Your task to perform on an android device: Go to battery settings Image 0: 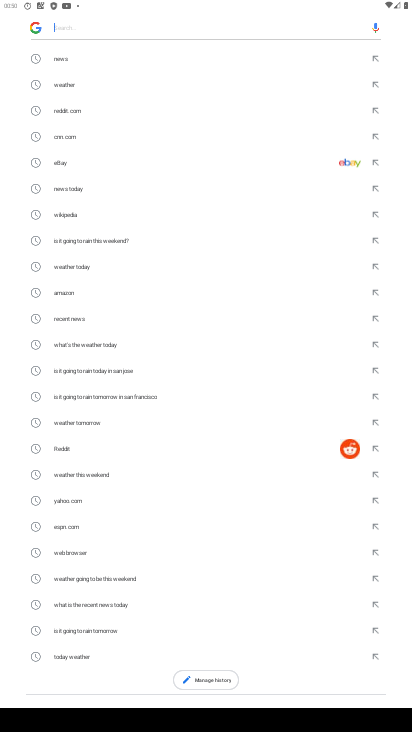
Step 0: press home button
Your task to perform on an android device: Go to battery settings Image 1: 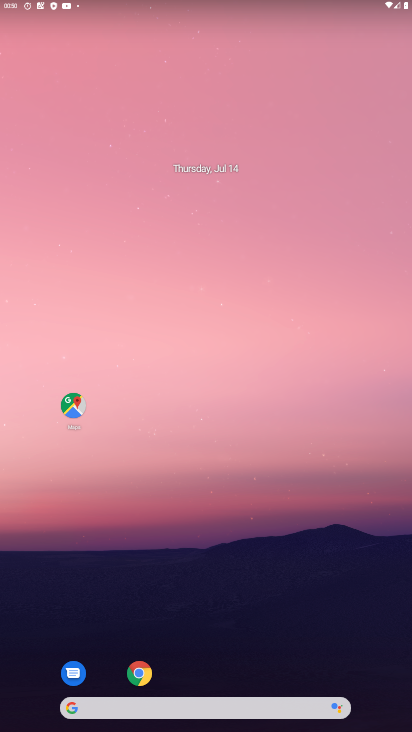
Step 1: drag from (243, 659) to (254, 123)
Your task to perform on an android device: Go to battery settings Image 2: 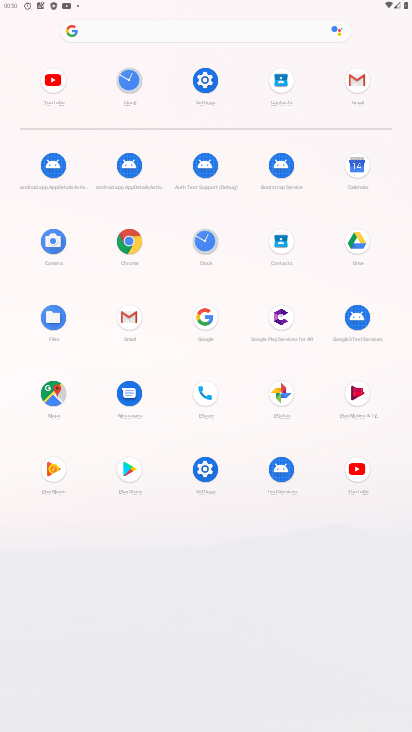
Step 2: click (215, 81)
Your task to perform on an android device: Go to battery settings Image 3: 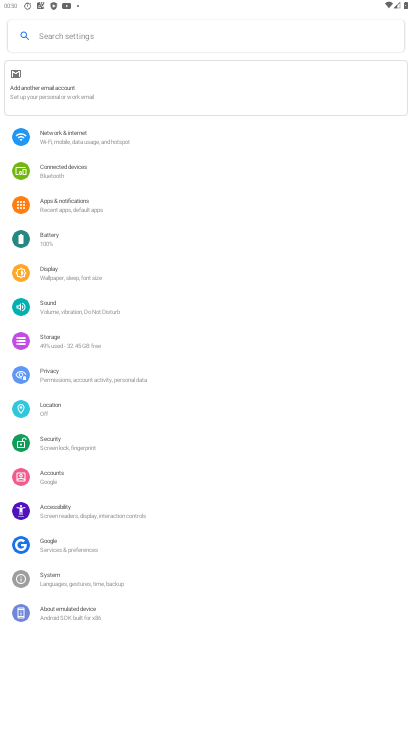
Step 3: click (70, 239)
Your task to perform on an android device: Go to battery settings Image 4: 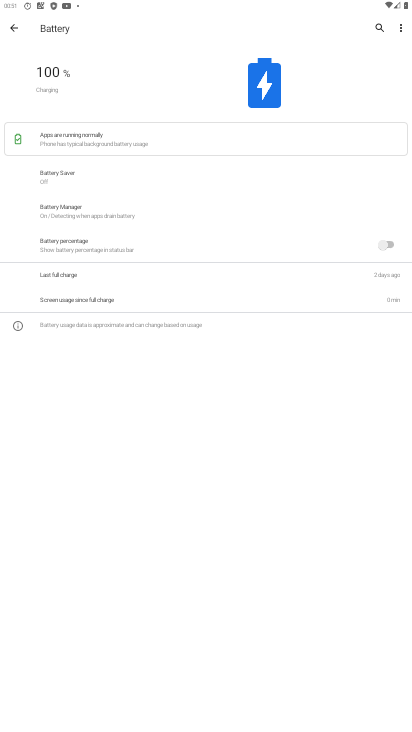
Step 4: task complete